Your task to perform on an android device: make emails show in primary in the gmail app Image 0: 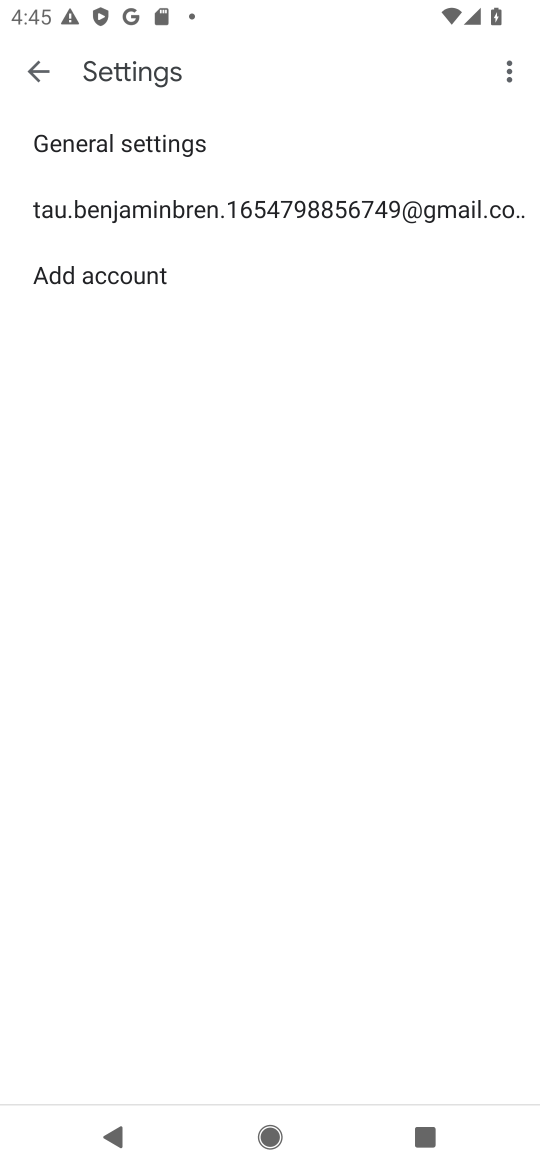
Step 0: press home button
Your task to perform on an android device: make emails show in primary in the gmail app Image 1: 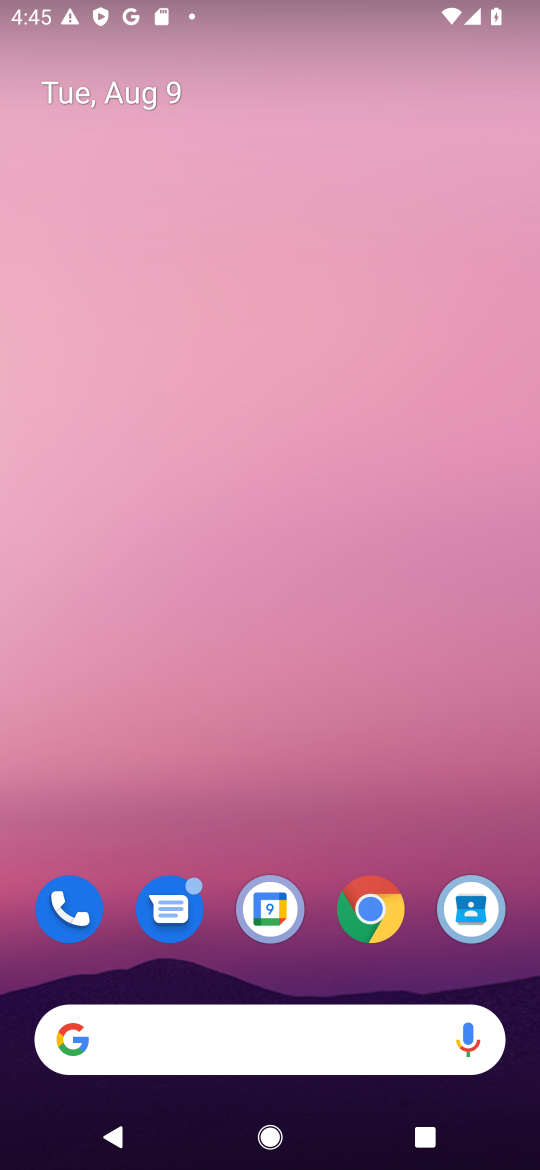
Step 1: drag from (376, 850) to (220, 20)
Your task to perform on an android device: make emails show in primary in the gmail app Image 2: 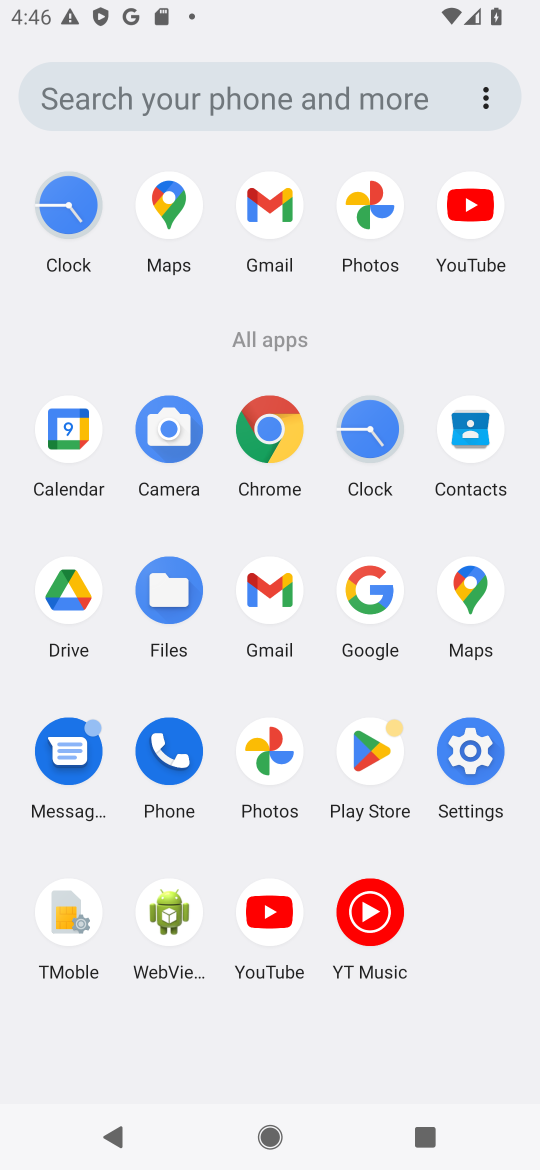
Step 2: click (285, 596)
Your task to perform on an android device: make emails show in primary in the gmail app Image 3: 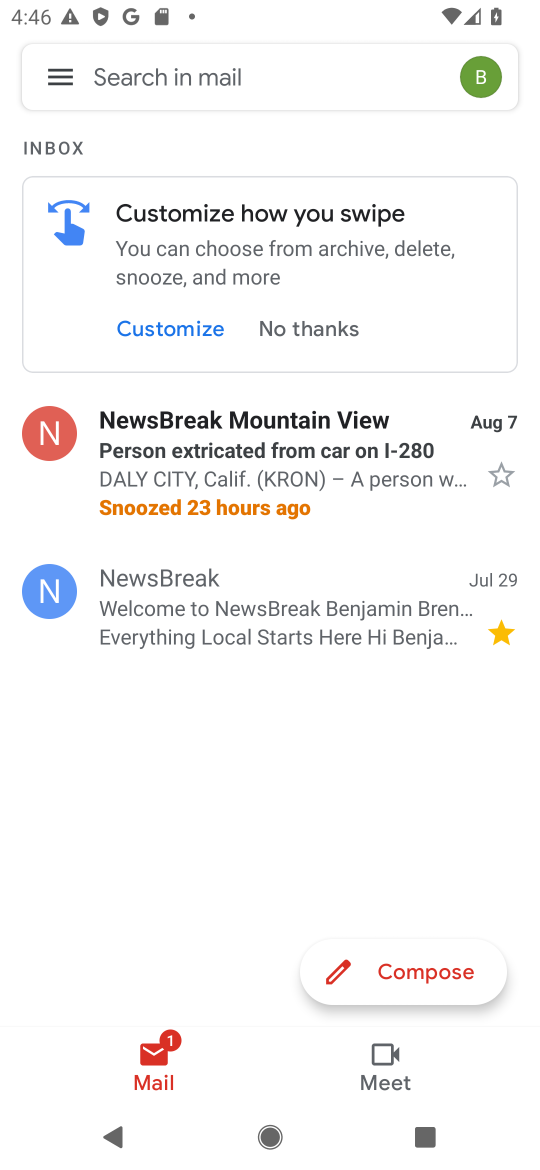
Step 3: click (64, 81)
Your task to perform on an android device: make emails show in primary in the gmail app Image 4: 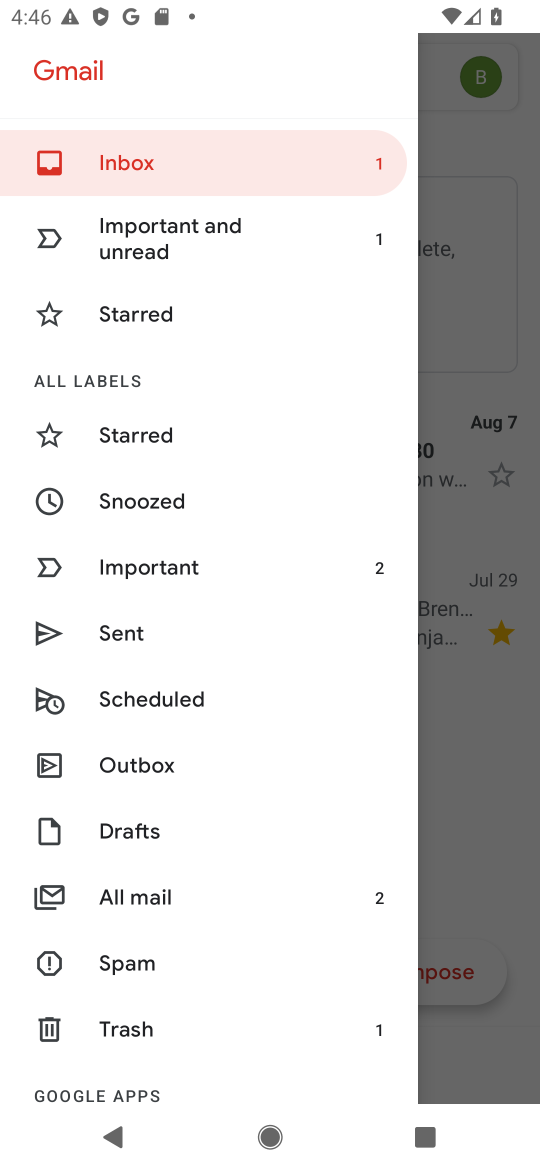
Step 4: drag from (306, 1069) to (215, 529)
Your task to perform on an android device: make emails show in primary in the gmail app Image 5: 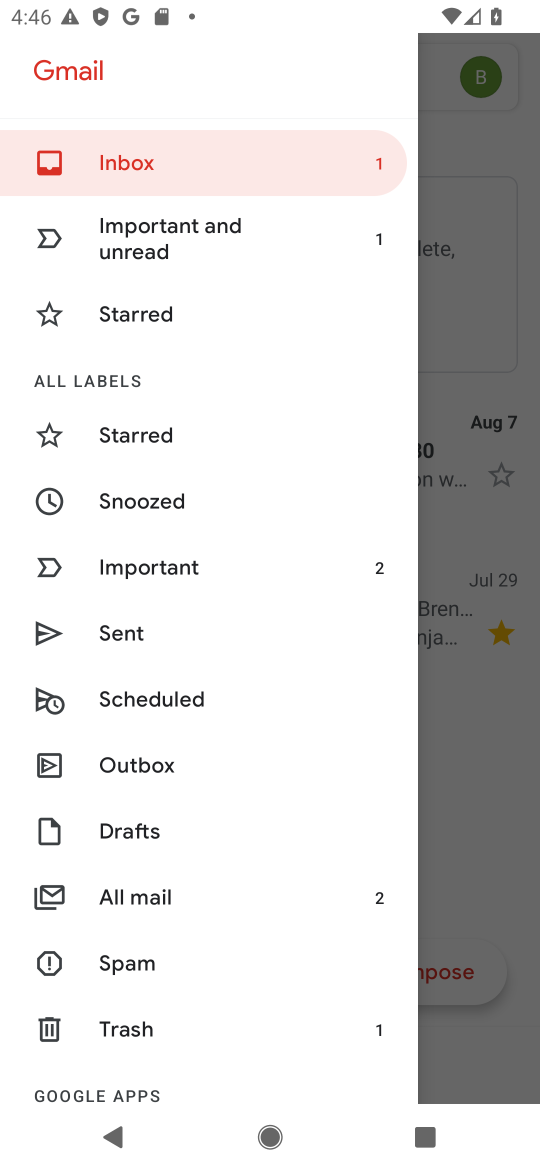
Step 5: drag from (248, 1005) to (198, 462)
Your task to perform on an android device: make emails show in primary in the gmail app Image 6: 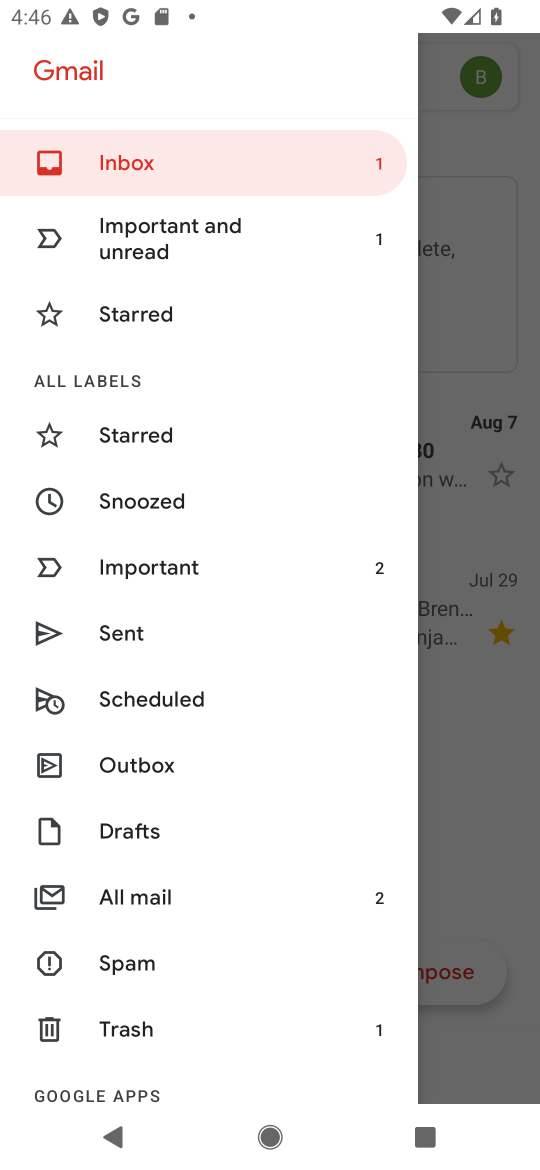
Step 6: drag from (327, 994) to (312, 605)
Your task to perform on an android device: make emails show in primary in the gmail app Image 7: 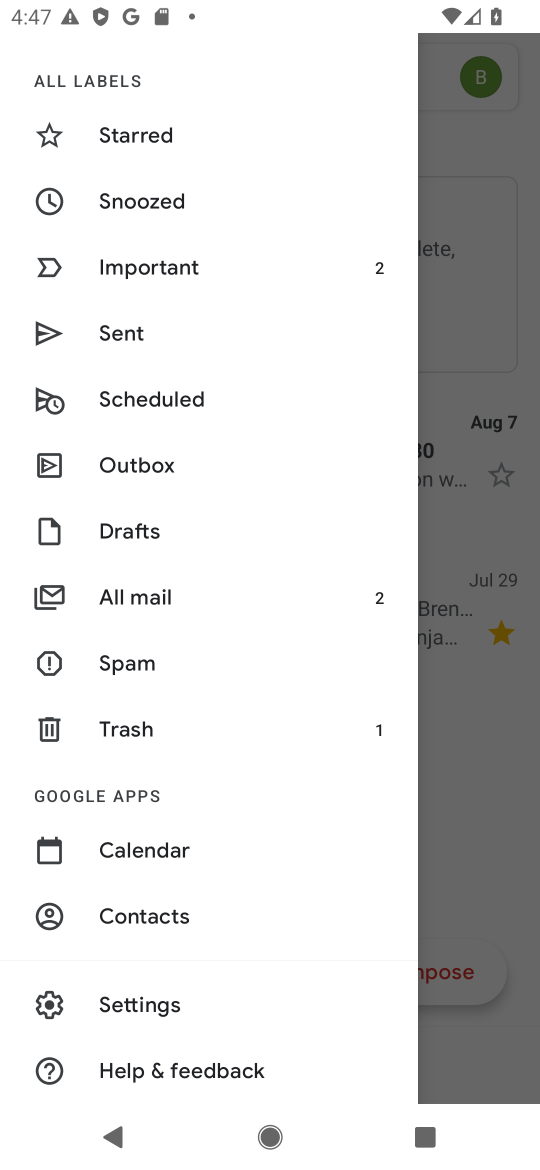
Step 7: click (172, 1006)
Your task to perform on an android device: make emails show in primary in the gmail app Image 8: 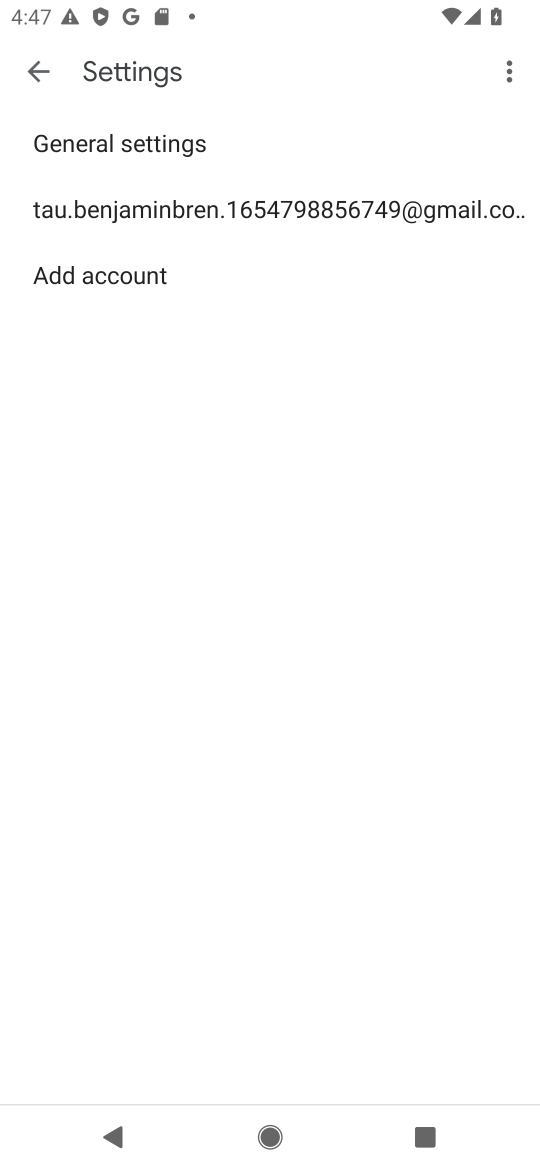
Step 8: click (188, 206)
Your task to perform on an android device: make emails show in primary in the gmail app Image 9: 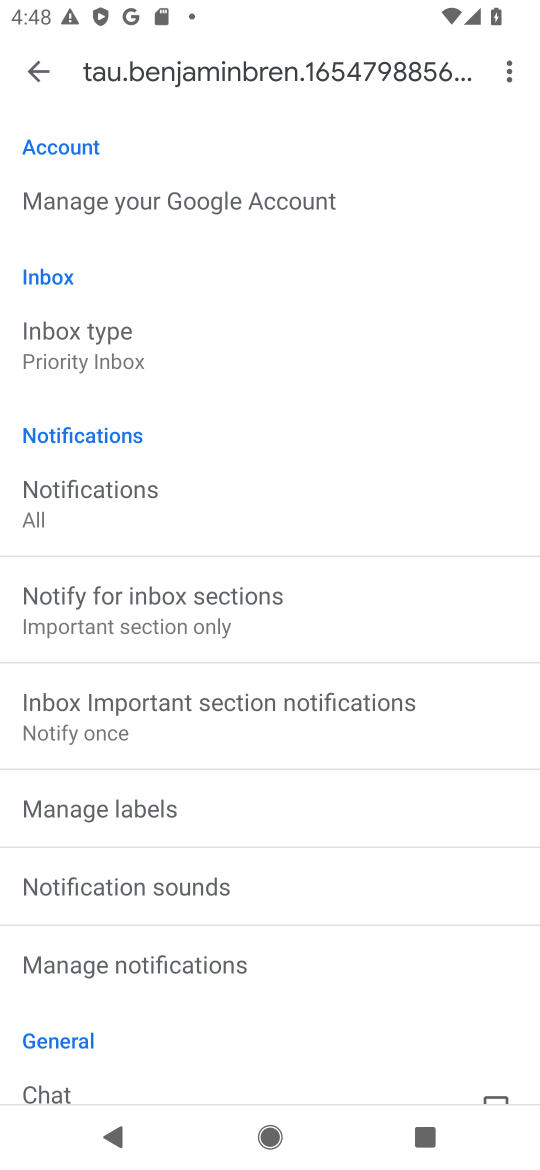
Step 9: click (104, 358)
Your task to perform on an android device: make emails show in primary in the gmail app Image 10: 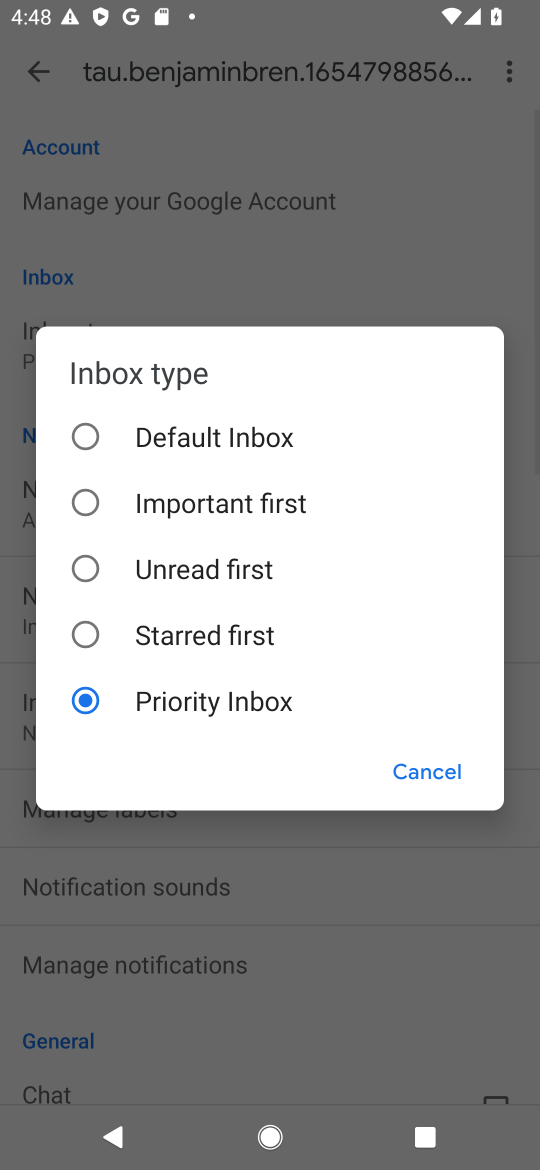
Step 10: click (135, 432)
Your task to perform on an android device: make emails show in primary in the gmail app Image 11: 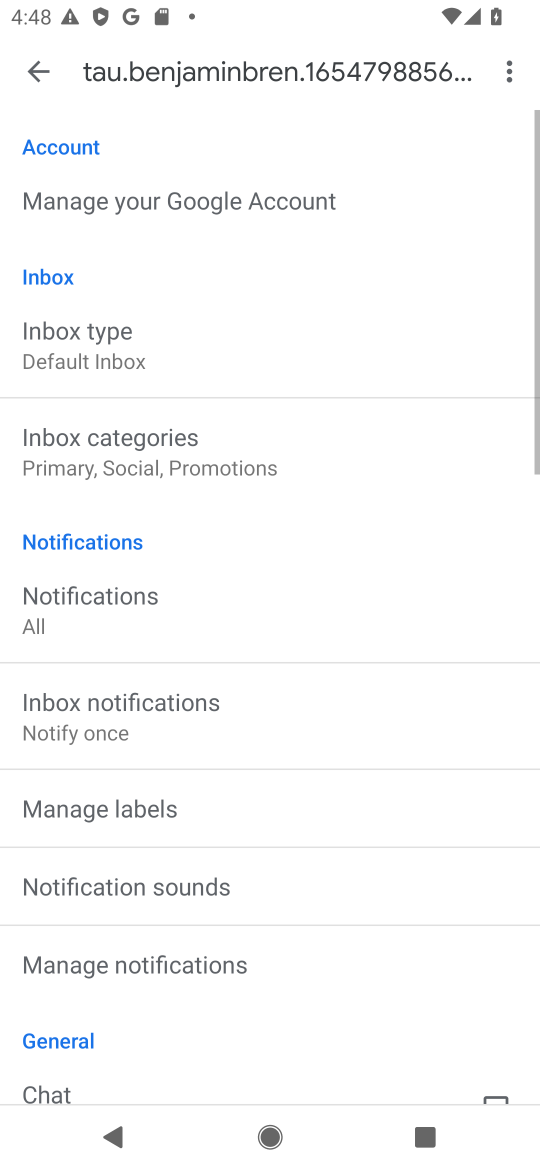
Step 11: click (164, 469)
Your task to perform on an android device: make emails show in primary in the gmail app Image 12: 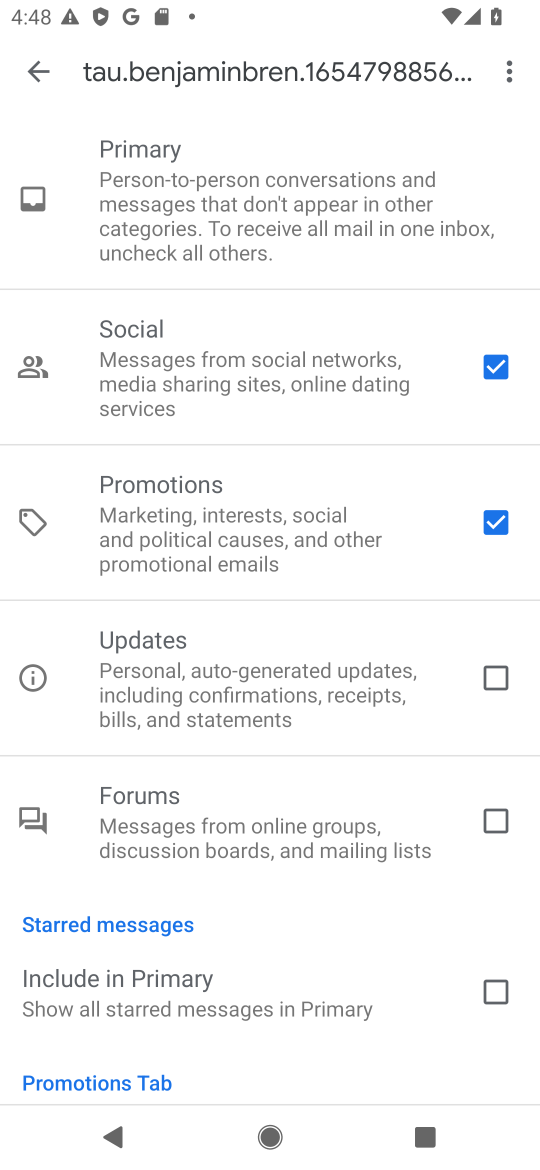
Step 12: click (497, 528)
Your task to perform on an android device: make emails show in primary in the gmail app Image 13: 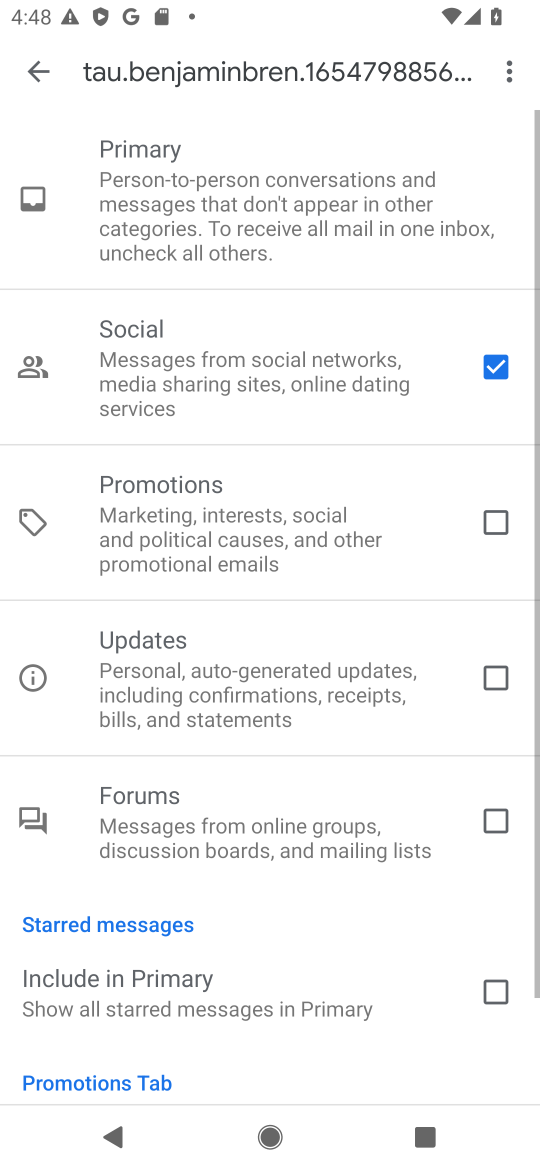
Step 13: click (496, 359)
Your task to perform on an android device: make emails show in primary in the gmail app Image 14: 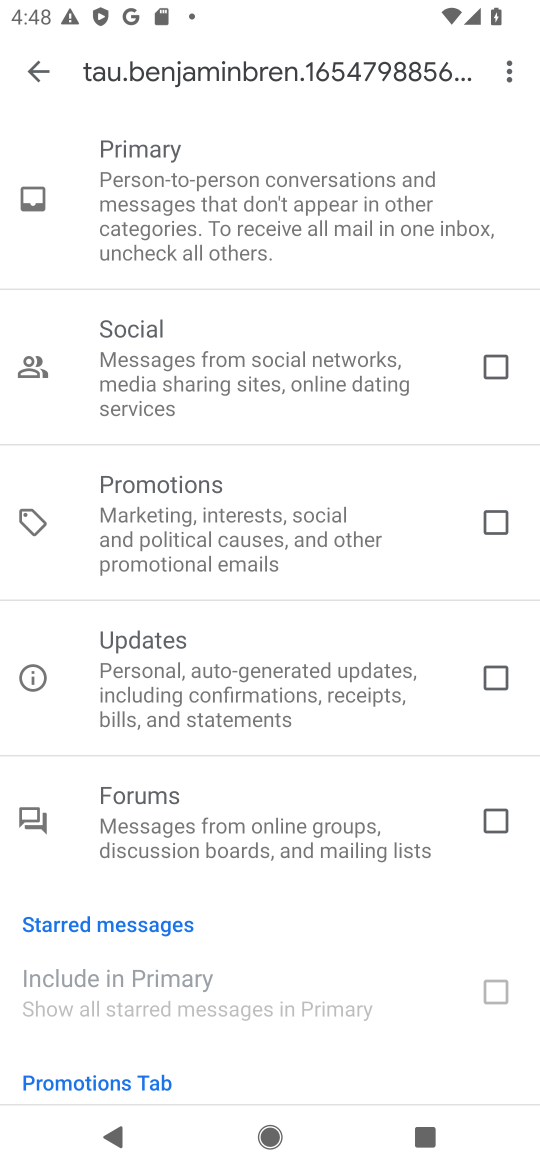
Step 14: task complete